Your task to perform on an android device: Show me productivity apps on the Play Store Image 0: 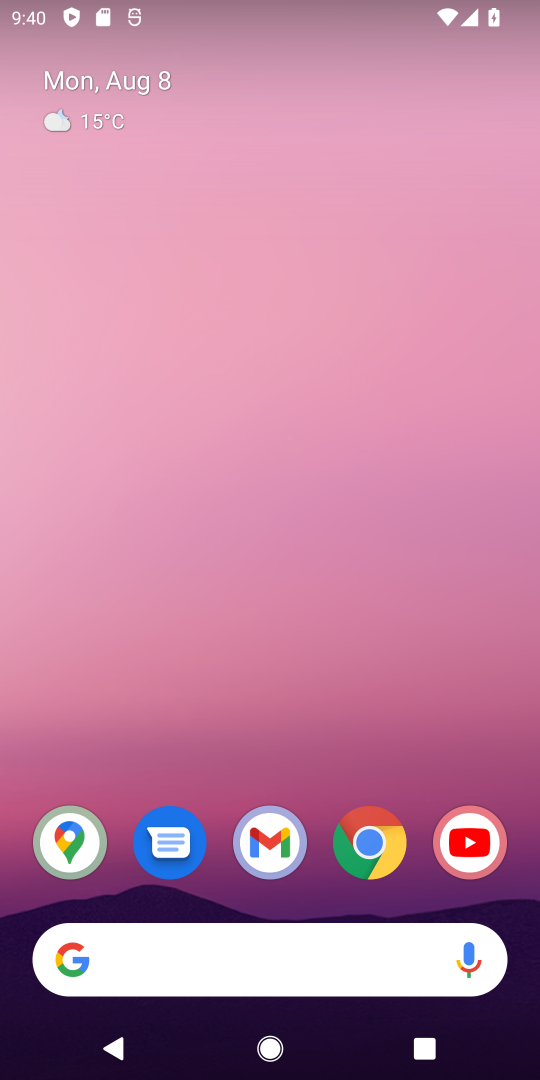
Step 0: drag from (323, 775) to (202, 409)
Your task to perform on an android device: Show me productivity apps on the Play Store Image 1: 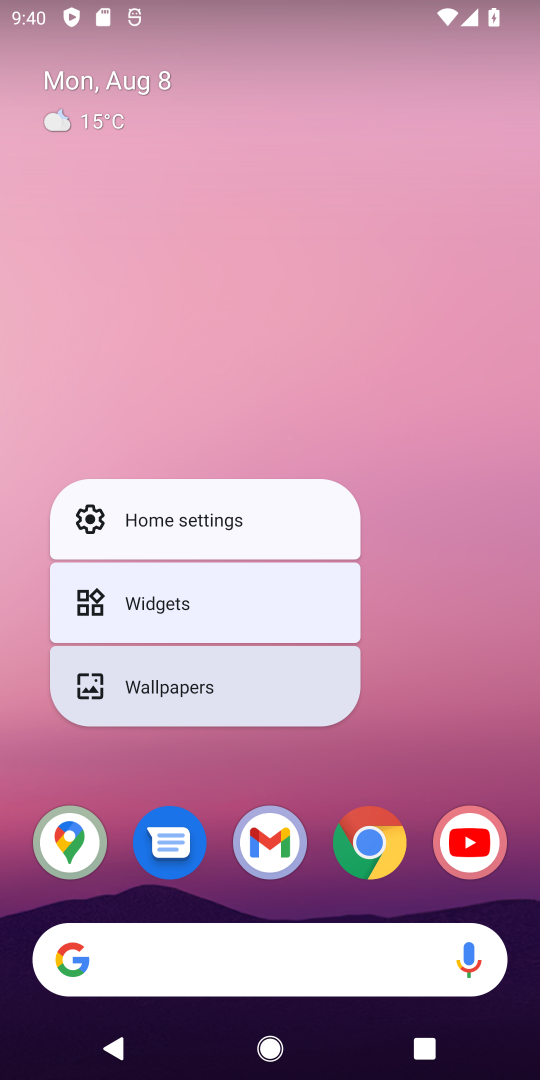
Step 1: click (437, 717)
Your task to perform on an android device: Show me productivity apps on the Play Store Image 2: 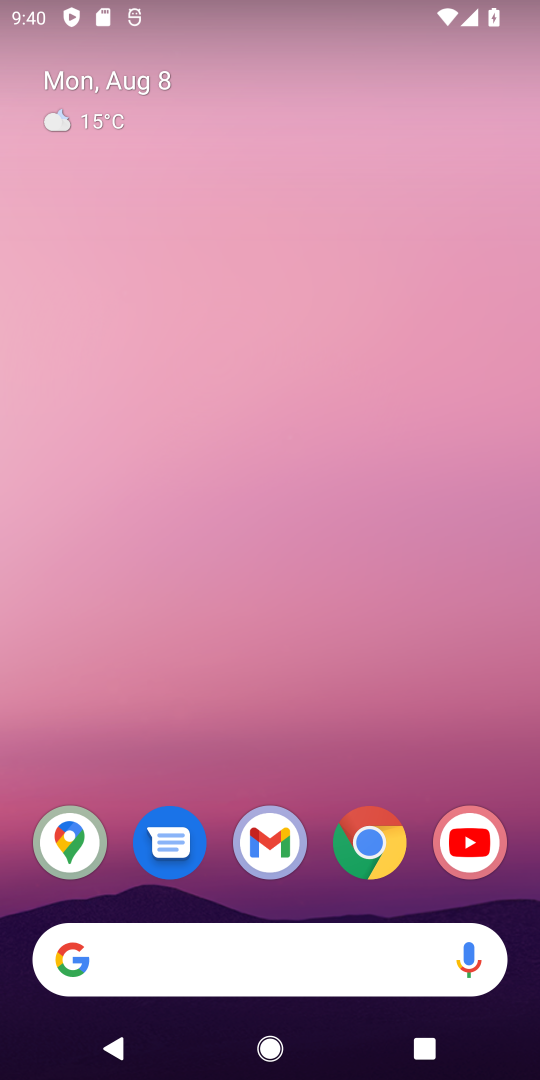
Step 2: drag from (340, 775) to (252, 21)
Your task to perform on an android device: Show me productivity apps on the Play Store Image 3: 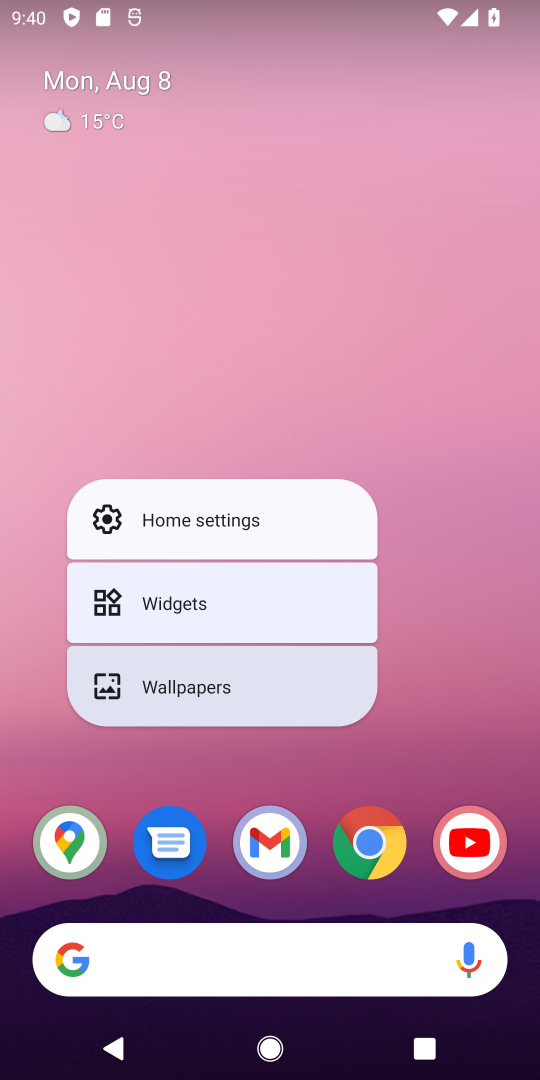
Step 3: click (476, 697)
Your task to perform on an android device: Show me productivity apps on the Play Store Image 4: 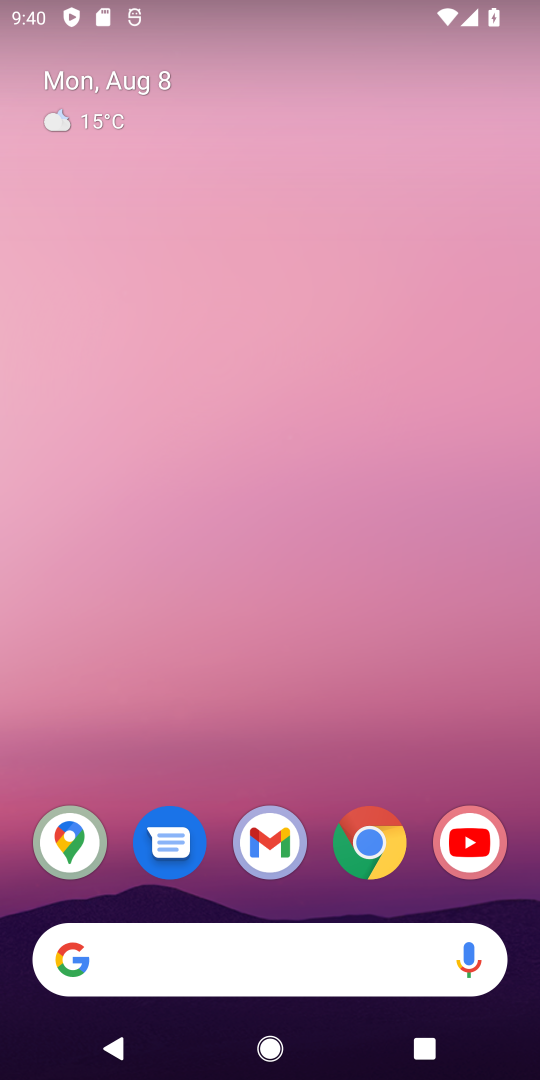
Step 4: drag from (476, 697) to (463, 40)
Your task to perform on an android device: Show me productivity apps on the Play Store Image 5: 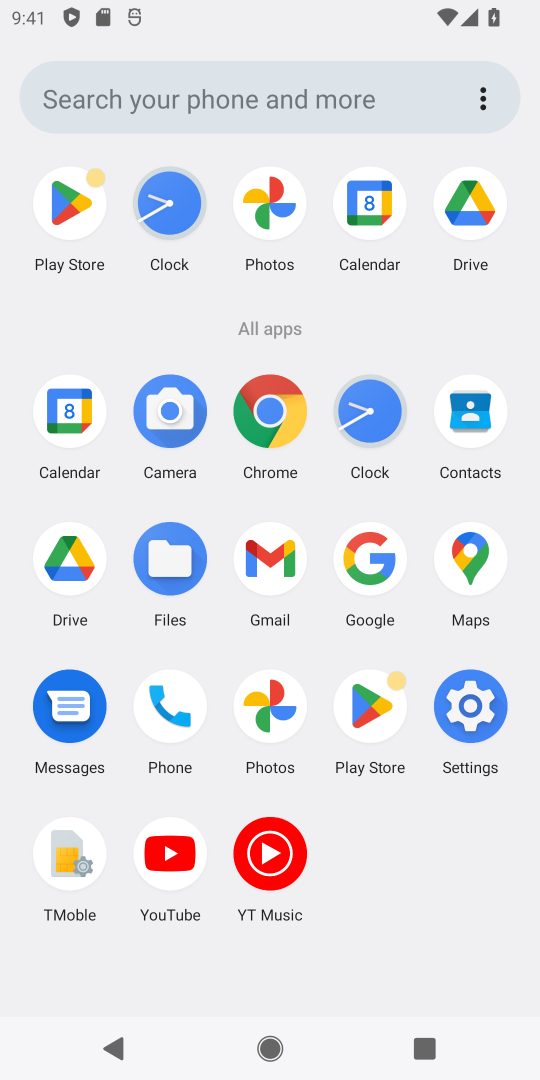
Step 5: click (376, 695)
Your task to perform on an android device: Show me productivity apps on the Play Store Image 6: 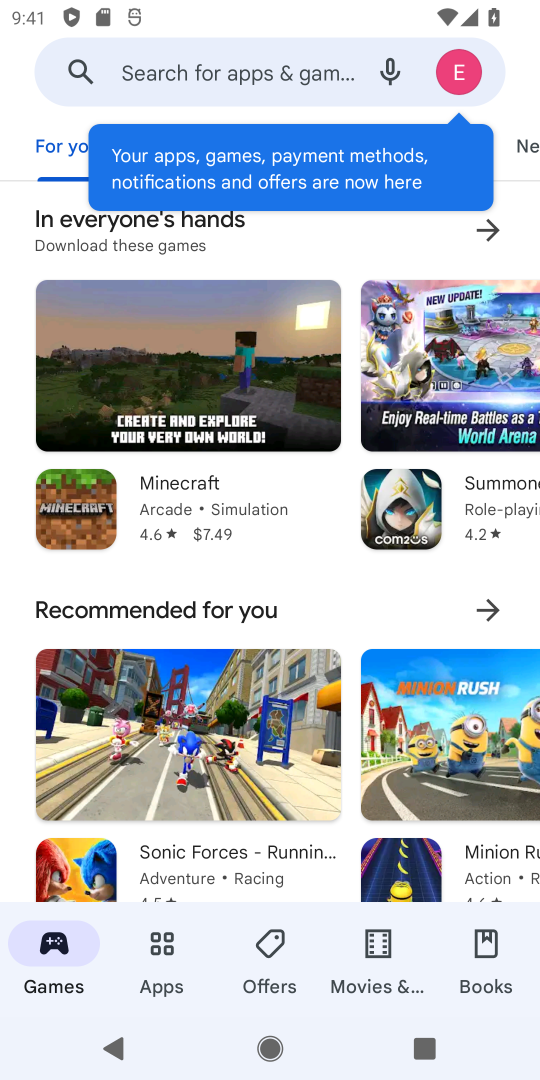
Step 6: click (168, 960)
Your task to perform on an android device: Show me productivity apps on the Play Store Image 7: 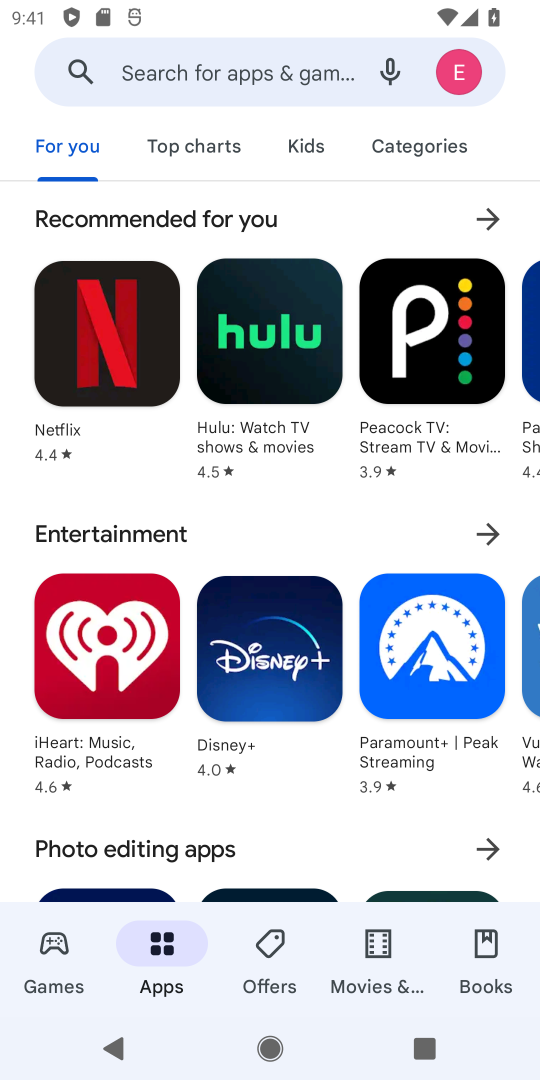
Step 7: click (393, 136)
Your task to perform on an android device: Show me productivity apps on the Play Store Image 8: 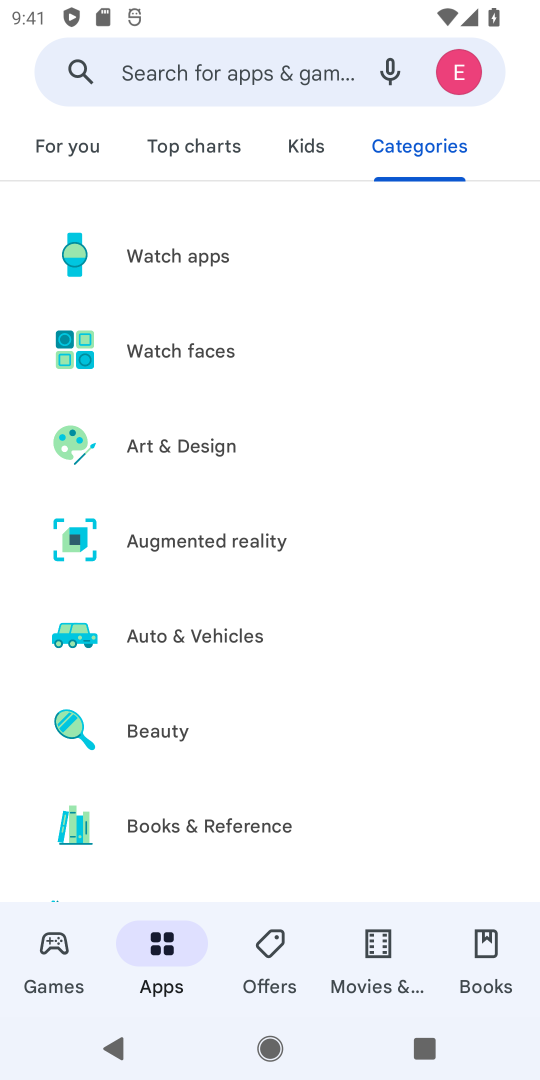
Step 8: drag from (453, 720) to (369, 247)
Your task to perform on an android device: Show me productivity apps on the Play Store Image 9: 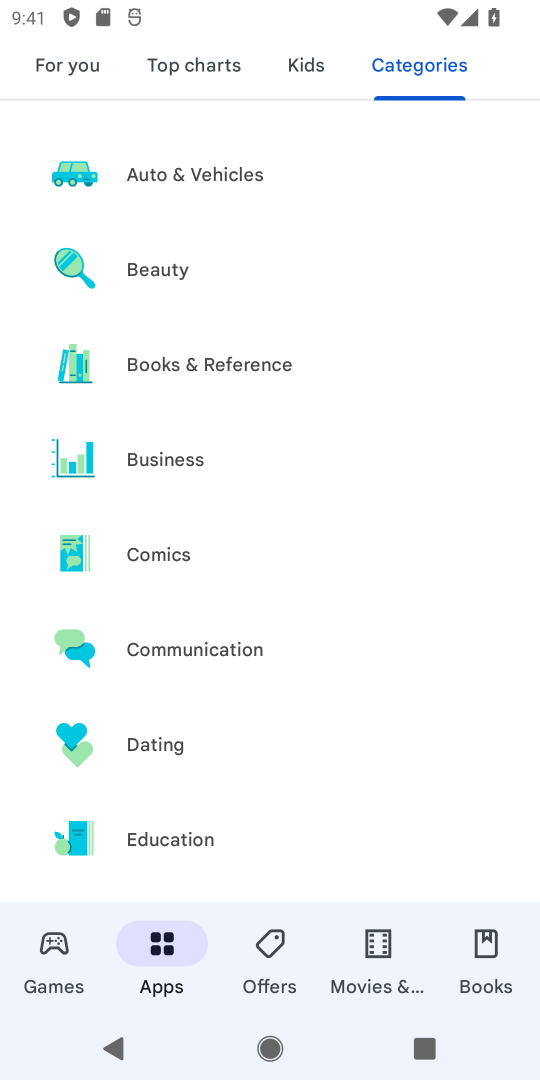
Step 9: drag from (440, 847) to (350, 123)
Your task to perform on an android device: Show me productivity apps on the Play Store Image 10: 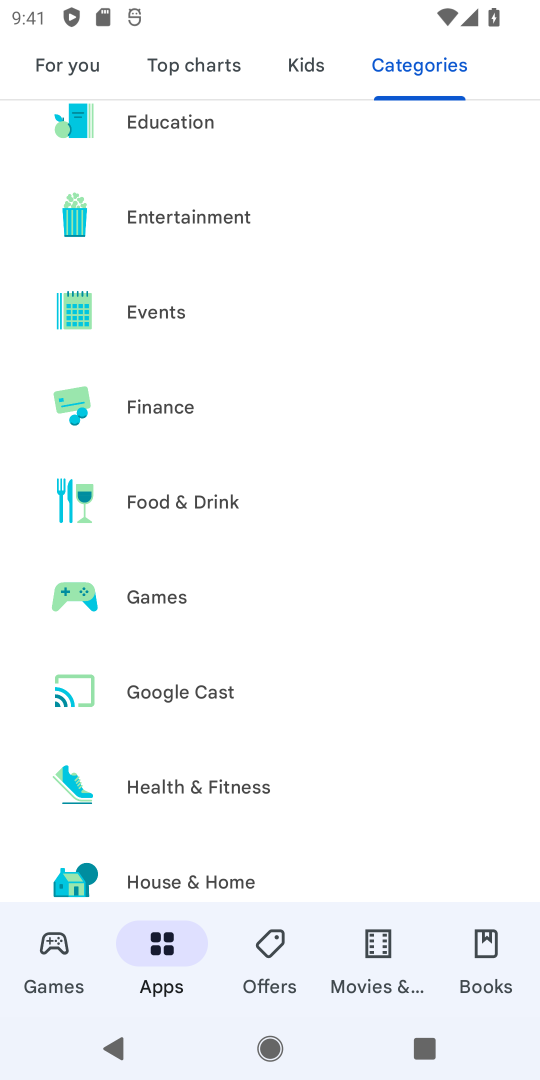
Step 10: drag from (343, 842) to (211, 333)
Your task to perform on an android device: Show me productivity apps on the Play Store Image 11: 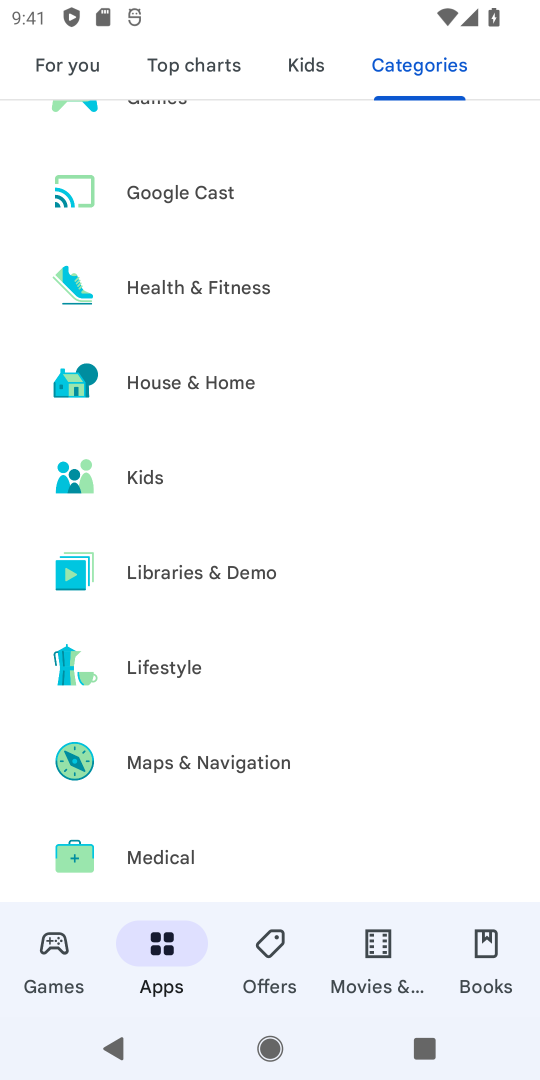
Step 11: drag from (458, 680) to (369, 321)
Your task to perform on an android device: Show me productivity apps on the Play Store Image 12: 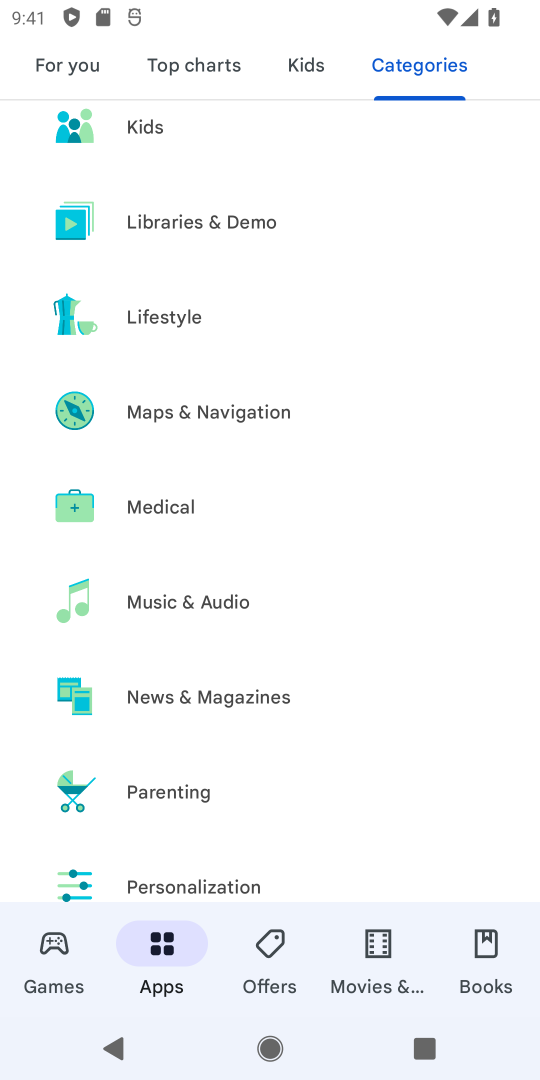
Step 12: drag from (365, 782) to (301, 459)
Your task to perform on an android device: Show me productivity apps on the Play Store Image 13: 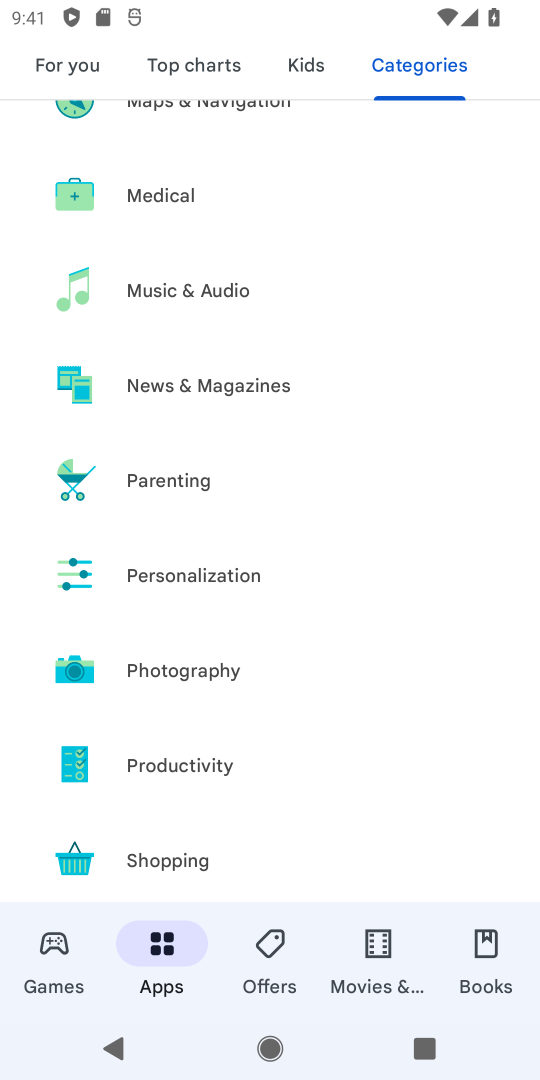
Step 13: click (226, 754)
Your task to perform on an android device: Show me productivity apps on the Play Store Image 14: 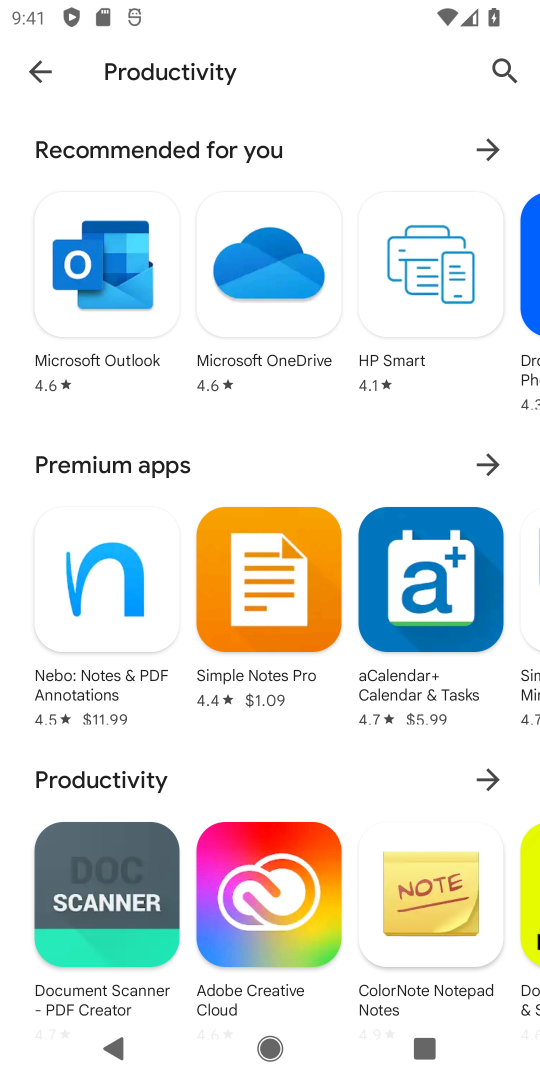
Step 14: task complete